Your task to perform on an android device: turn off translation in the chrome app Image 0: 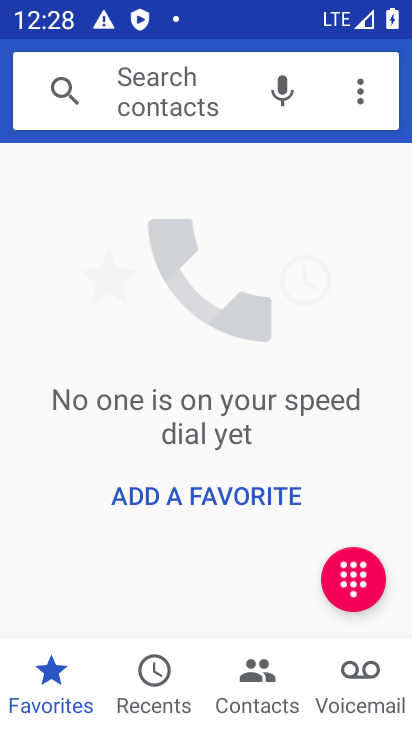
Step 0: press home button
Your task to perform on an android device: turn off translation in the chrome app Image 1: 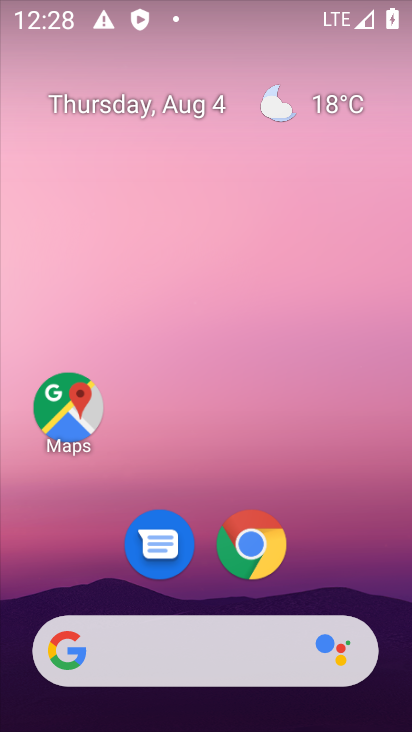
Step 1: click (248, 542)
Your task to perform on an android device: turn off translation in the chrome app Image 2: 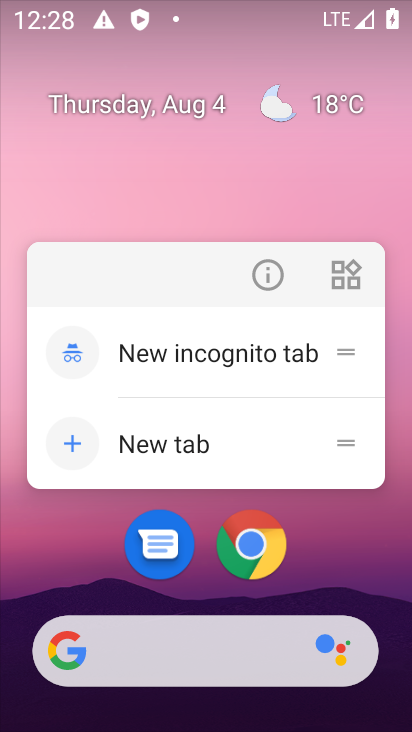
Step 2: click (246, 544)
Your task to perform on an android device: turn off translation in the chrome app Image 3: 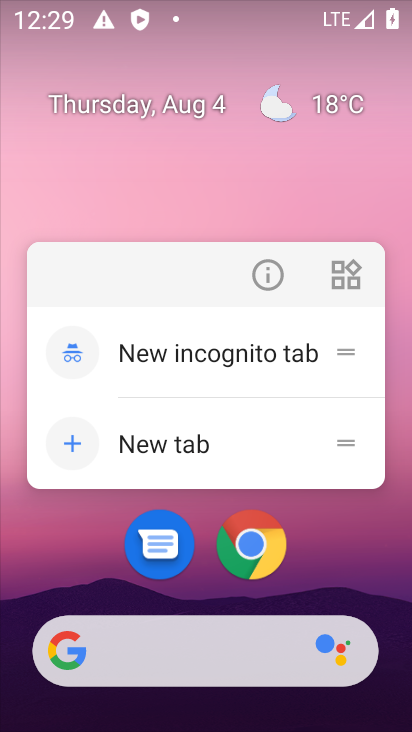
Step 3: click (246, 526)
Your task to perform on an android device: turn off translation in the chrome app Image 4: 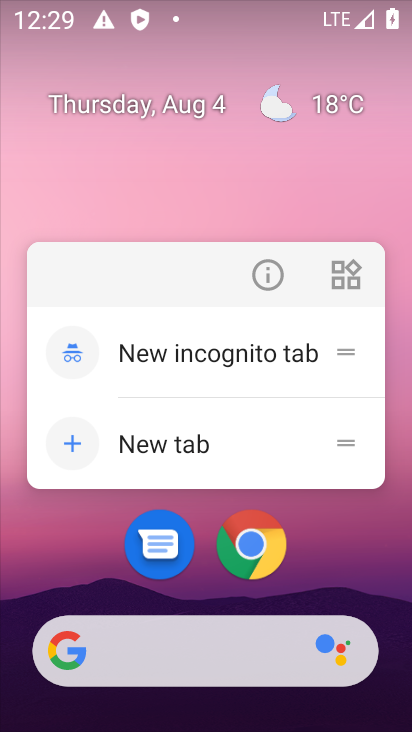
Step 4: click (248, 538)
Your task to perform on an android device: turn off translation in the chrome app Image 5: 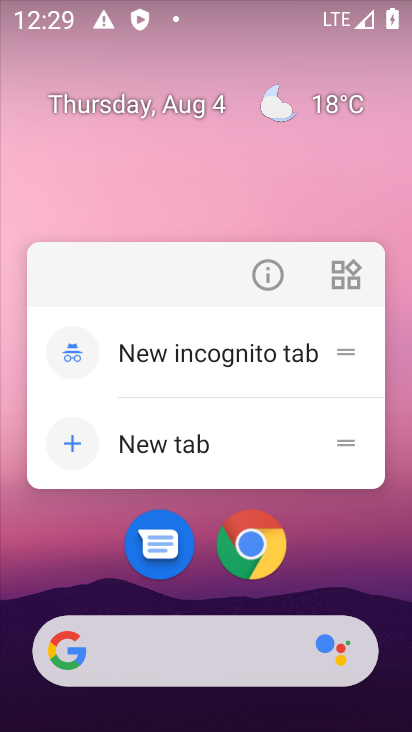
Step 5: click (248, 539)
Your task to perform on an android device: turn off translation in the chrome app Image 6: 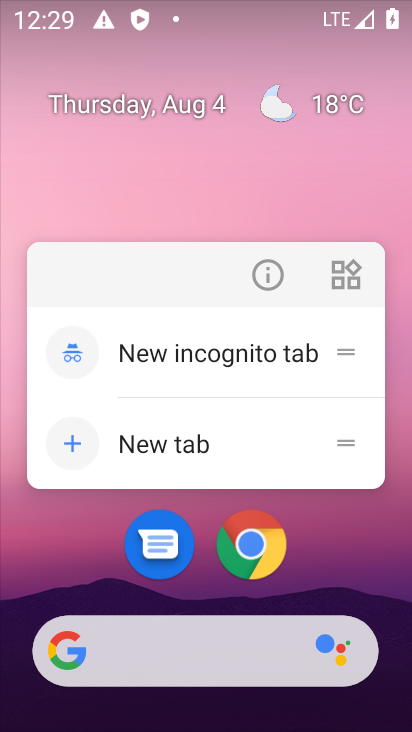
Step 6: click (248, 539)
Your task to perform on an android device: turn off translation in the chrome app Image 7: 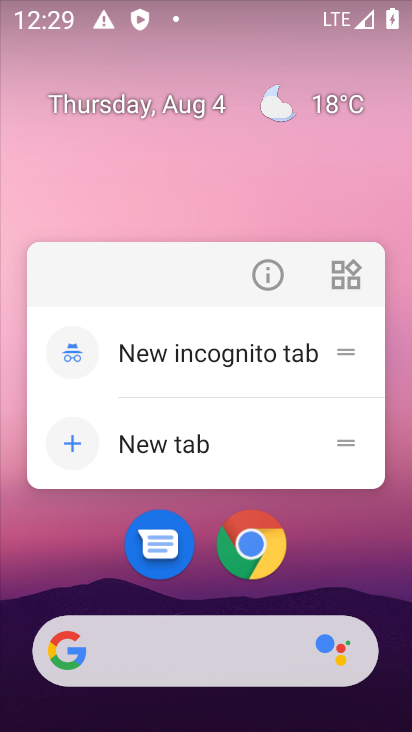
Step 7: click (248, 539)
Your task to perform on an android device: turn off translation in the chrome app Image 8: 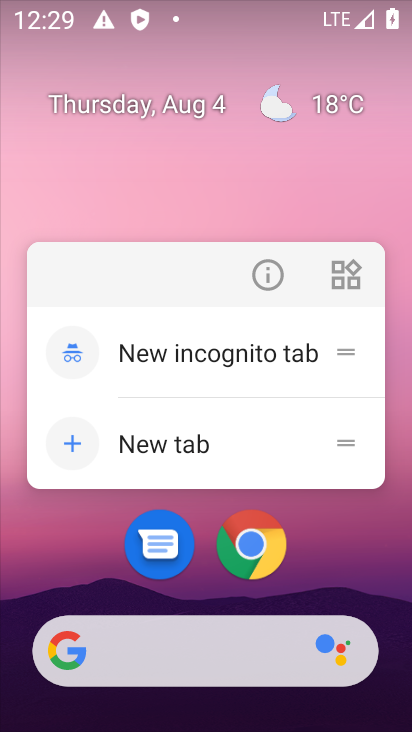
Step 8: click (247, 536)
Your task to perform on an android device: turn off translation in the chrome app Image 9: 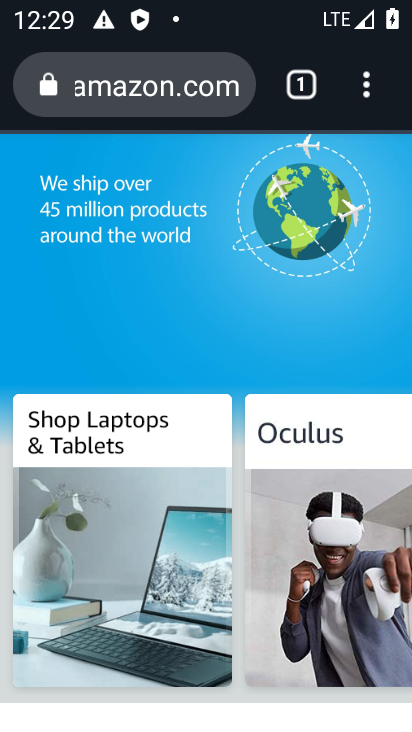
Step 9: click (366, 88)
Your task to perform on an android device: turn off translation in the chrome app Image 10: 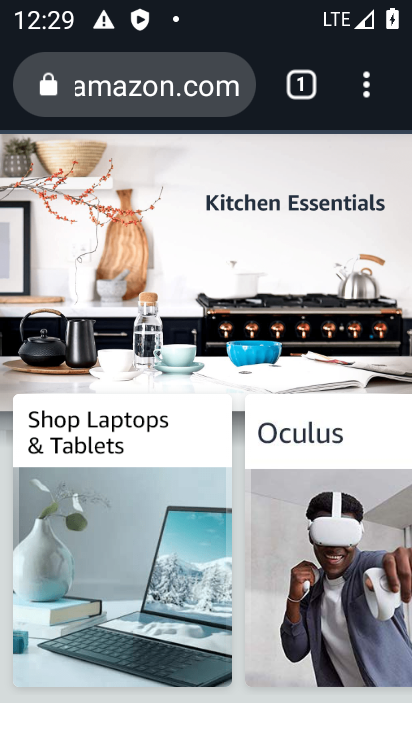
Step 10: click (366, 88)
Your task to perform on an android device: turn off translation in the chrome app Image 11: 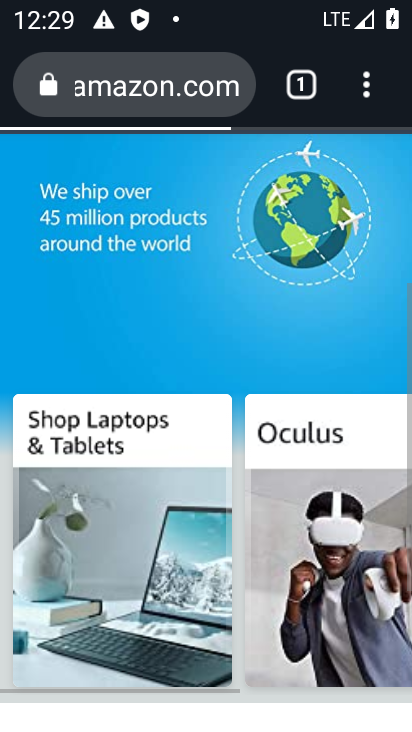
Step 11: click (366, 88)
Your task to perform on an android device: turn off translation in the chrome app Image 12: 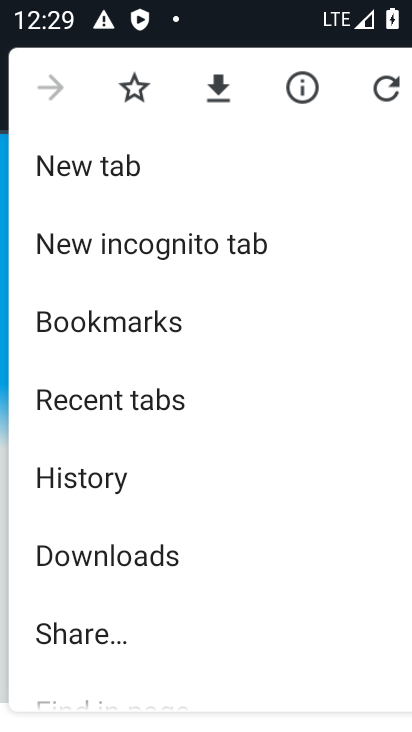
Step 12: drag from (304, 641) to (294, 210)
Your task to perform on an android device: turn off translation in the chrome app Image 13: 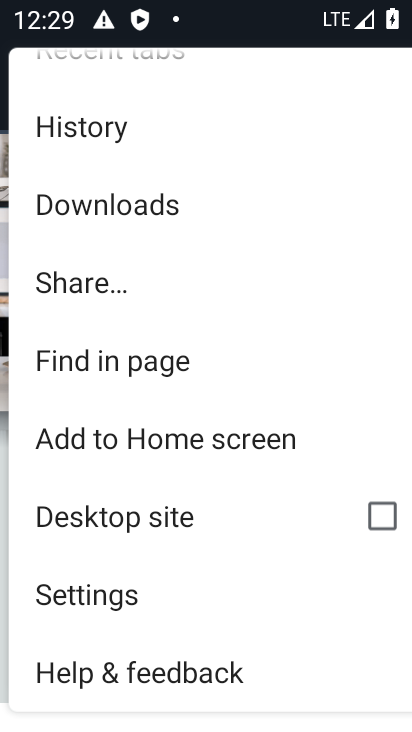
Step 13: click (106, 590)
Your task to perform on an android device: turn off translation in the chrome app Image 14: 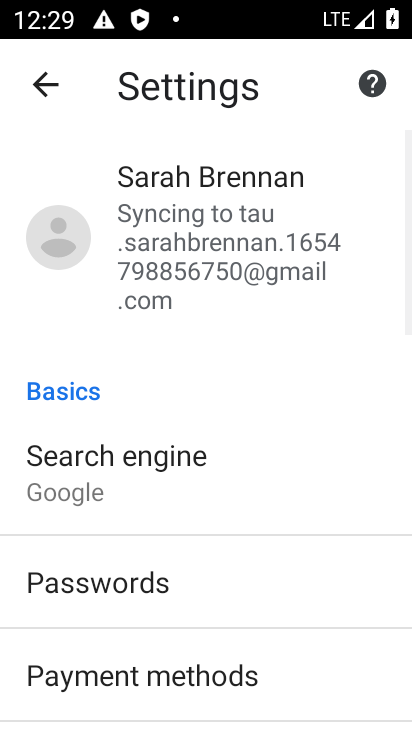
Step 14: drag from (310, 568) to (318, 103)
Your task to perform on an android device: turn off translation in the chrome app Image 15: 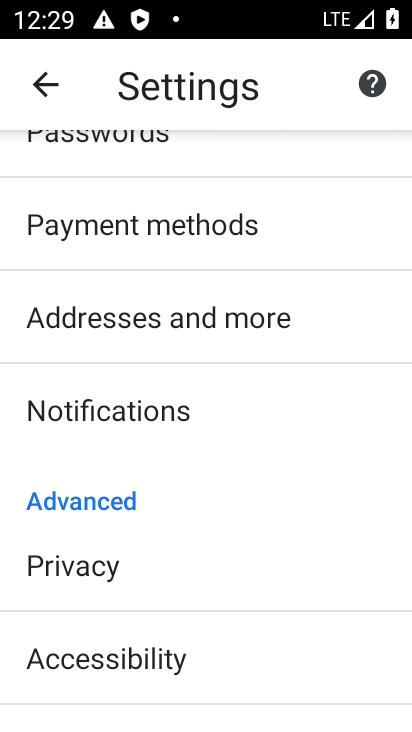
Step 15: drag from (274, 643) to (287, 223)
Your task to perform on an android device: turn off translation in the chrome app Image 16: 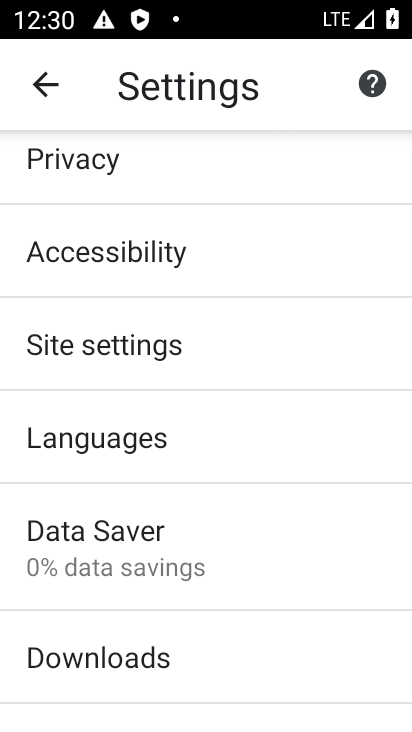
Step 16: drag from (284, 553) to (283, 302)
Your task to perform on an android device: turn off translation in the chrome app Image 17: 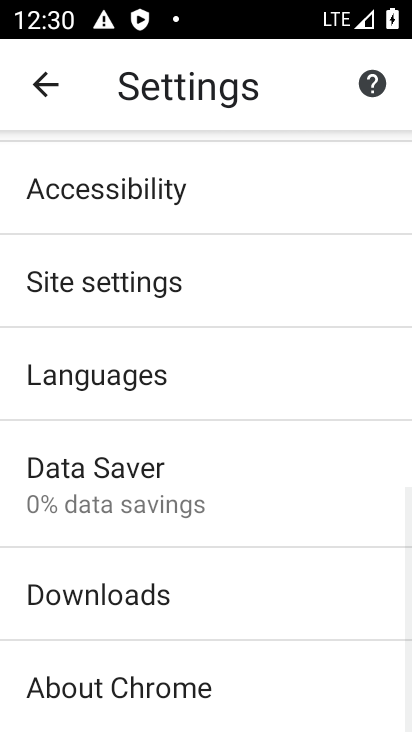
Step 17: drag from (271, 665) to (254, 278)
Your task to perform on an android device: turn off translation in the chrome app Image 18: 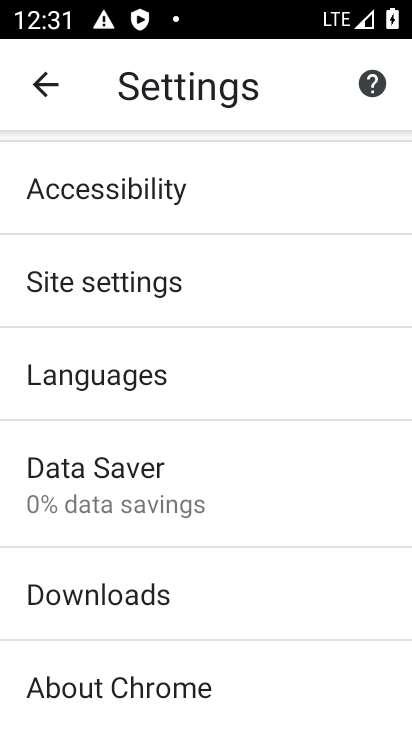
Step 18: click (134, 362)
Your task to perform on an android device: turn off translation in the chrome app Image 19: 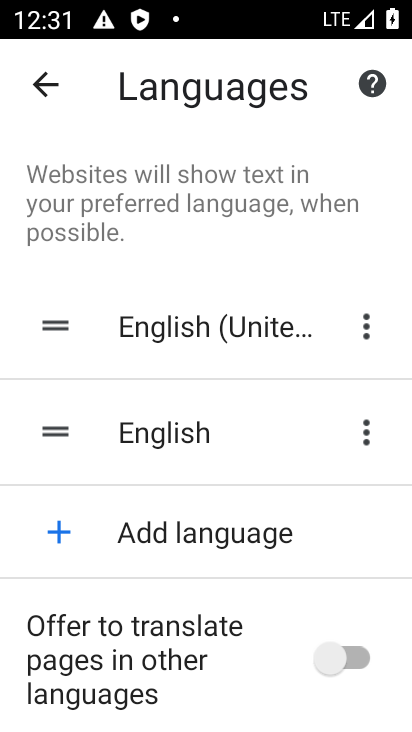
Step 19: task complete